Your task to perform on an android device: Go to Android settings Image 0: 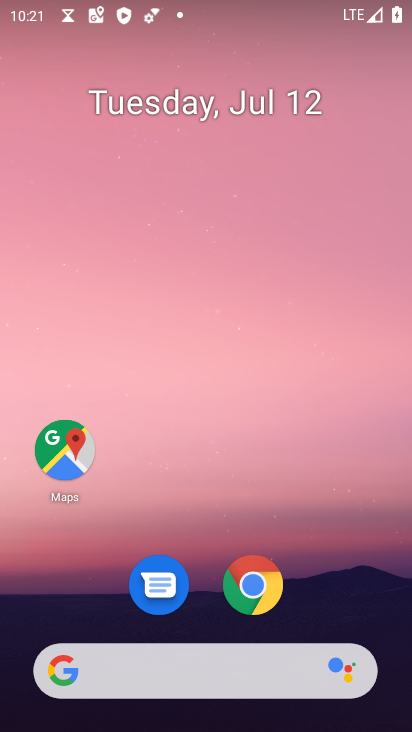
Step 0: press home button
Your task to perform on an android device: Go to Android settings Image 1: 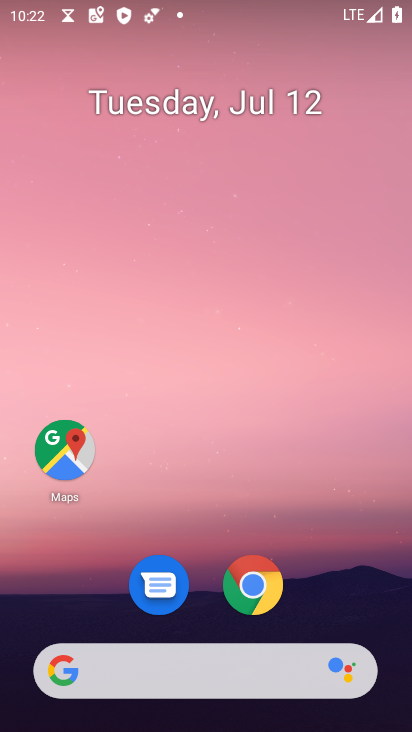
Step 1: drag from (223, 679) to (336, 118)
Your task to perform on an android device: Go to Android settings Image 2: 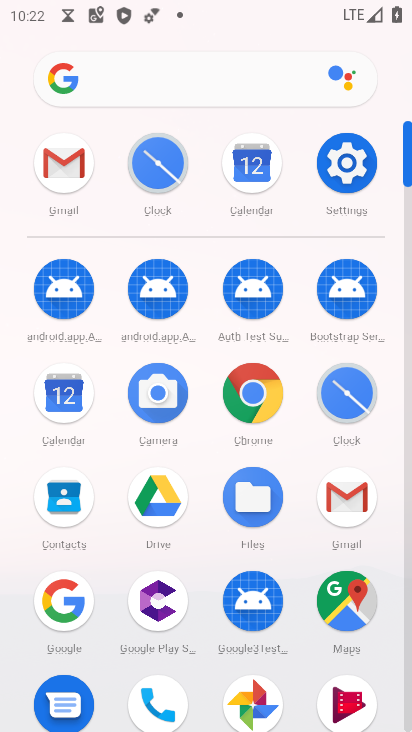
Step 2: click (343, 166)
Your task to perform on an android device: Go to Android settings Image 3: 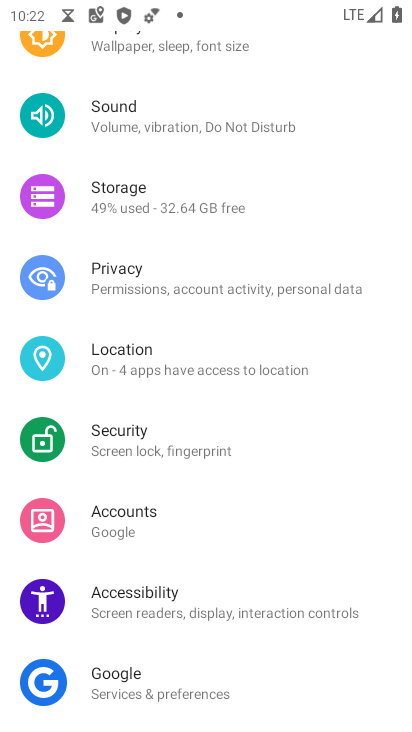
Step 3: task complete